Your task to perform on an android device: turn off smart reply in the gmail app Image 0: 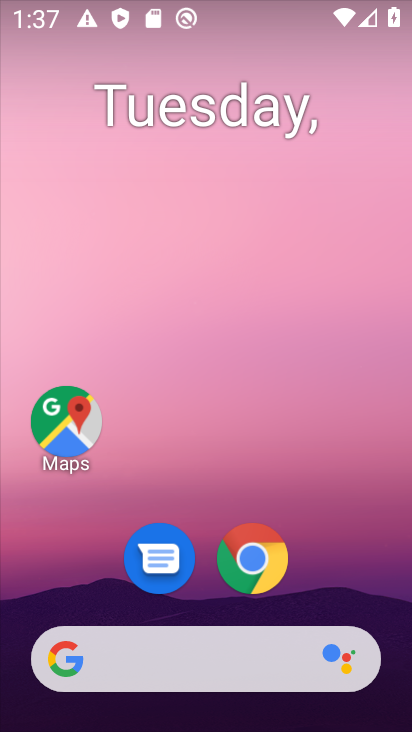
Step 0: drag from (198, 496) to (165, 148)
Your task to perform on an android device: turn off smart reply in the gmail app Image 1: 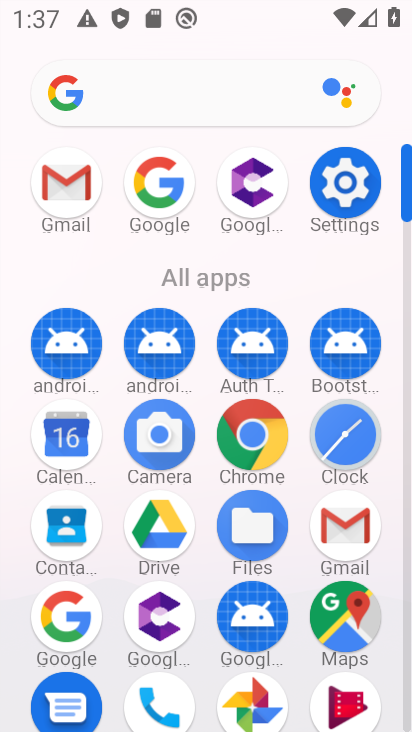
Step 1: click (89, 200)
Your task to perform on an android device: turn off smart reply in the gmail app Image 2: 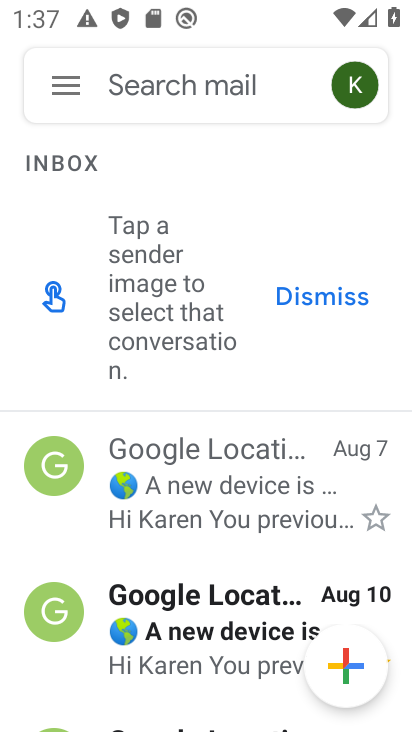
Step 2: click (72, 78)
Your task to perform on an android device: turn off smart reply in the gmail app Image 3: 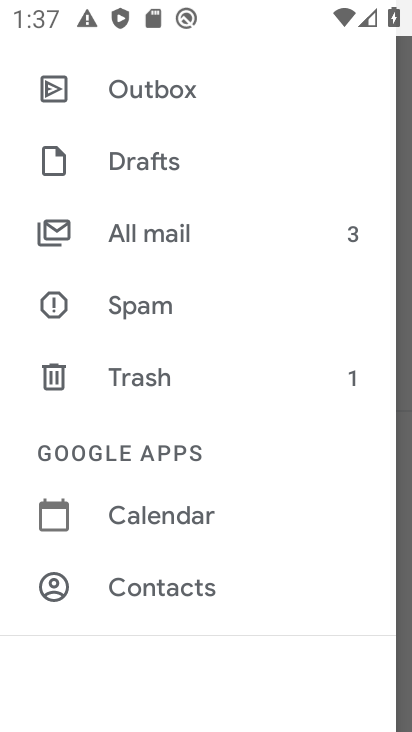
Step 3: drag from (122, 539) to (119, 236)
Your task to perform on an android device: turn off smart reply in the gmail app Image 4: 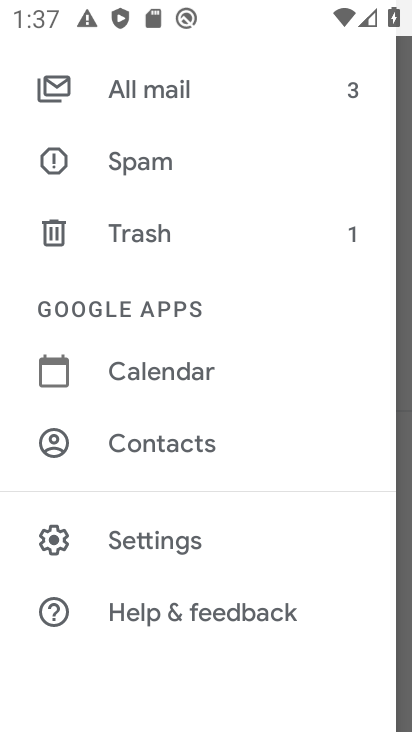
Step 4: click (130, 524)
Your task to perform on an android device: turn off smart reply in the gmail app Image 5: 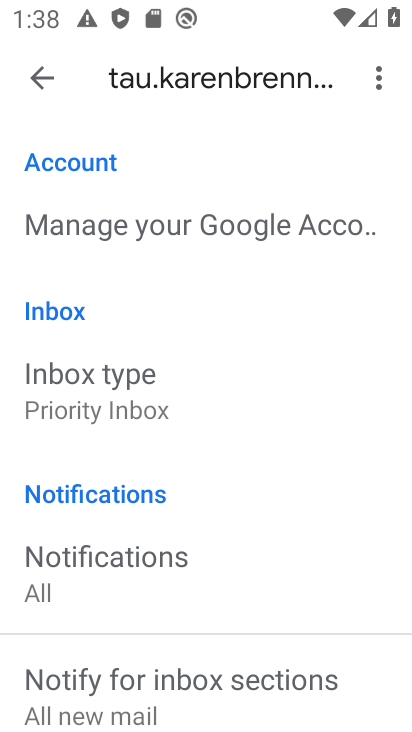
Step 5: drag from (192, 559) to (198, 226)
Your task to perform on an android device: turn off smart reply in the gmail app Image 6: 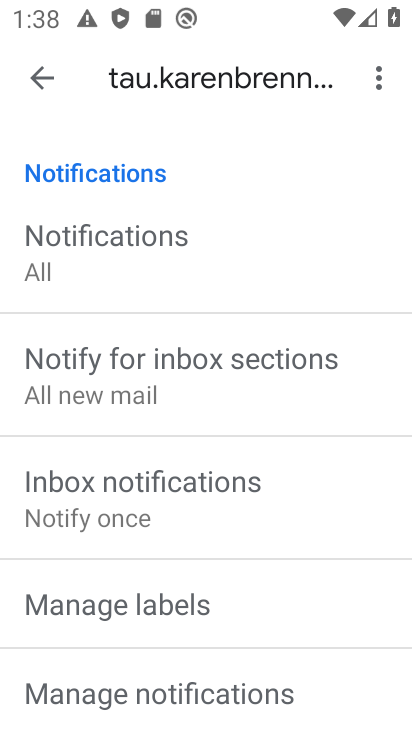
Step 6: drag from (161, 570) to (146, 214)
Your task to perform on an android device: turn off smart reply in the gmail app Image 7: 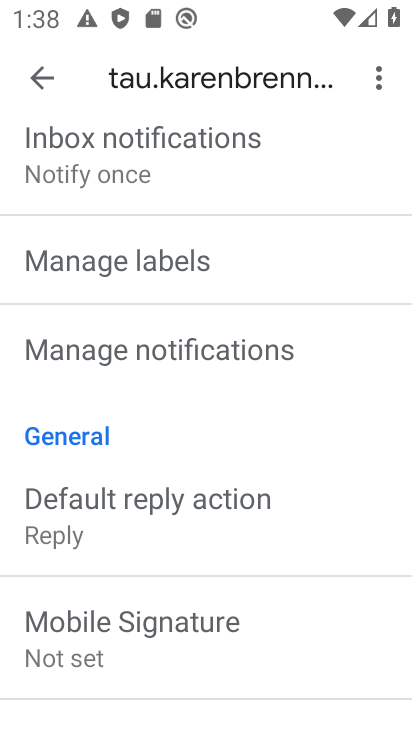
Step 7: drag from (202, 549) to (259, 205)
Your task to perform on an android device: turn off smart reply in the gmail app Image 8: 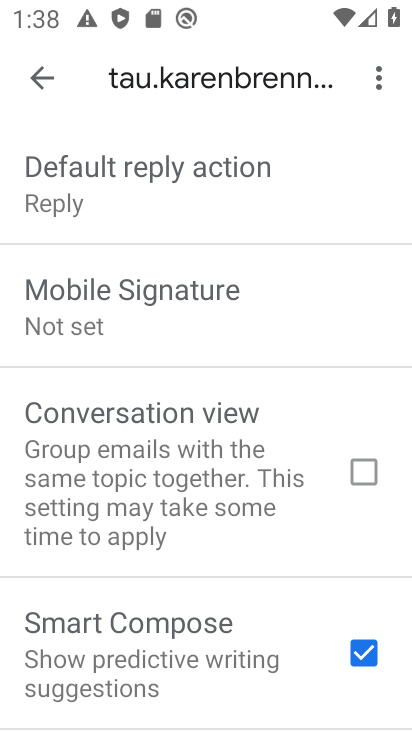
Step 8: drag from (256, 638) to (258, 254)
Your task to perform on an android device: turn off smart reply in the gmail app Image 9: 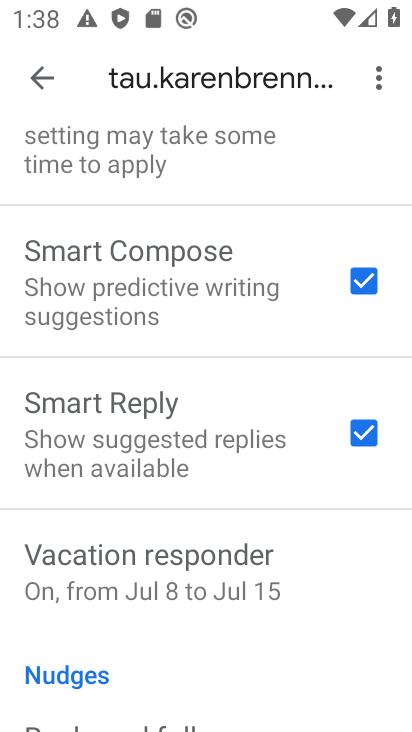
Step 9: click (341, 434)
Your task to perform on an android device: turn off smart reply in the gmail app Image 10: 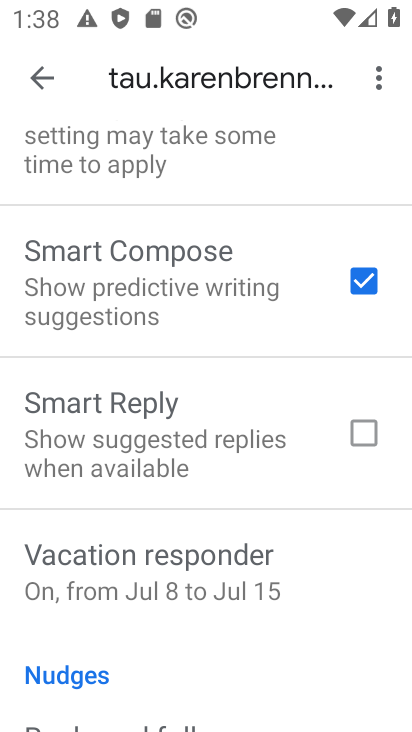
Step 10: task complete